Your task to perform on an android device: show emergency info Image 0: 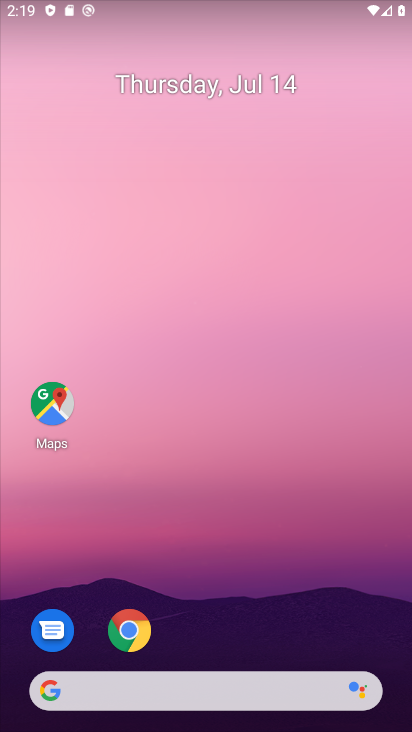
Step 0: press home button
Your task to perform on an android device: show emergency info Image 1: 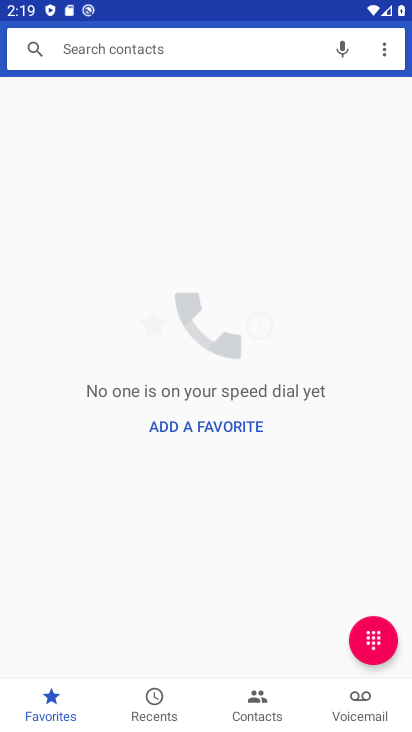
Step 1: click (188, 42)
Your task to perform on an android device: show emergency info Image 2: 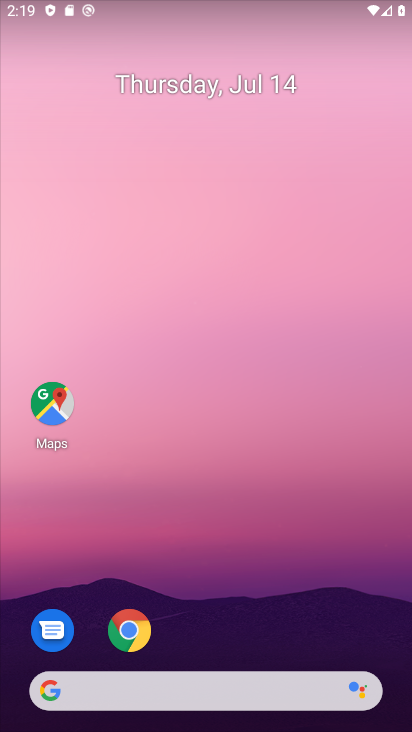
Step 2: drag from (213, 80) to (211, 3)
Your task to perform on an android device: show emergency info Image 3: 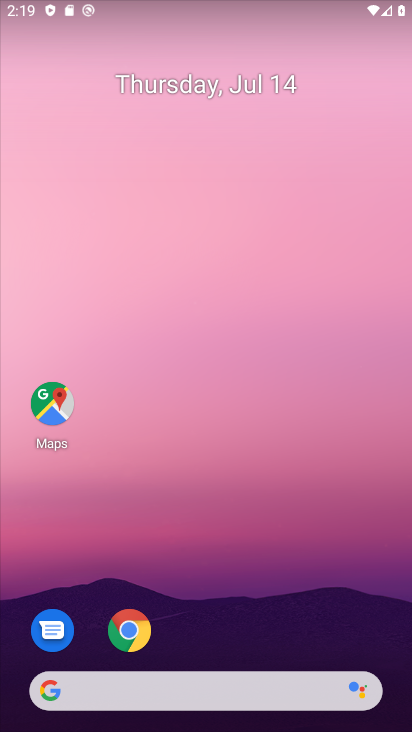
Step 3: drag from (230, 657) to (233, 8)
Your task to perform on an android device: show emergency info Image 4: 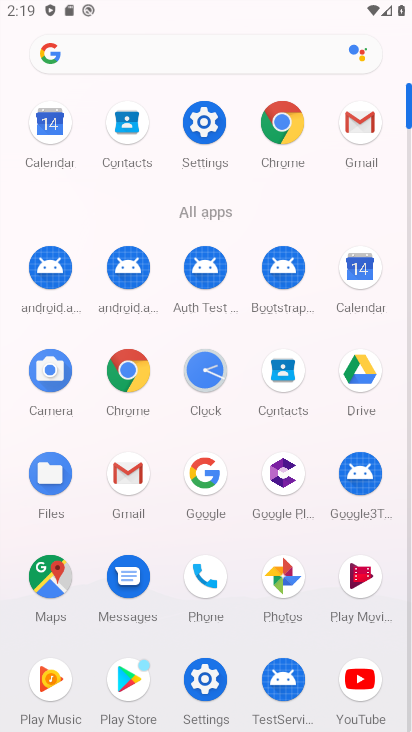
Step 4: click (200, 672)
Your task to perform on an android device: show emergency info Image 5: 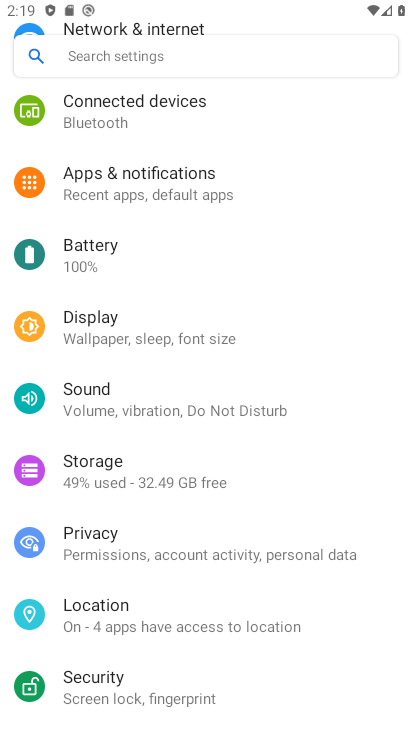
Step 5: drag from (220, 657) to (224, 28)
Your task to perform on an android device: show emergency info Image 6: 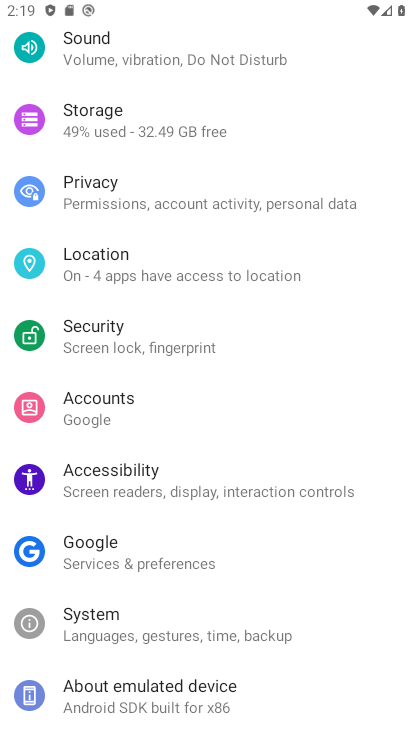
Step 6: click (231, 702)
Your task to perform on an android device: show emergency info Image 7: 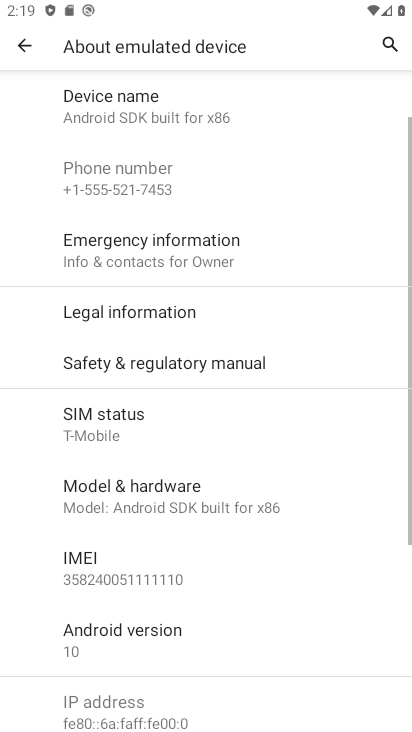
Step 7: click (252, 254)
Your task to perform on an android device: show emergency info Image 8: 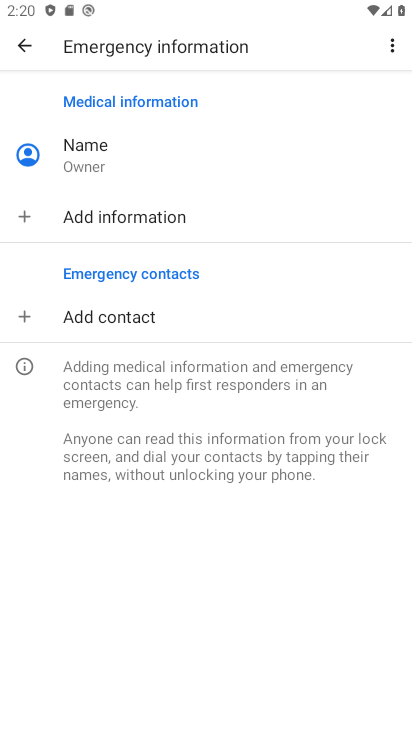
Step 8: task complete